Your task to perform on an android device: turn off javascript in the chrome app Image 0: 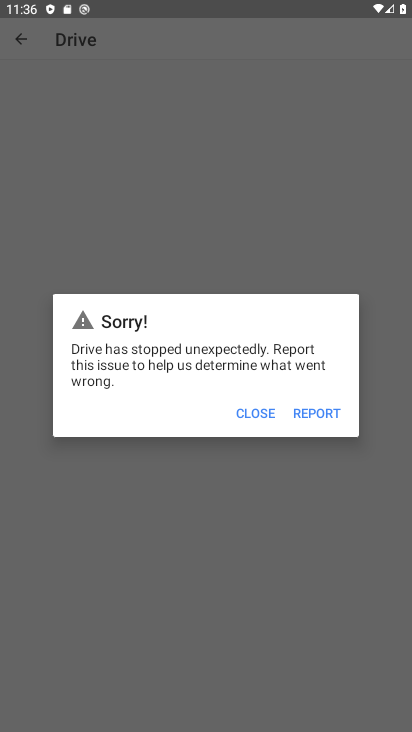
Step 0: press home button
Your task to perform on an android device: turn off javascript in the chrome app Image 1: 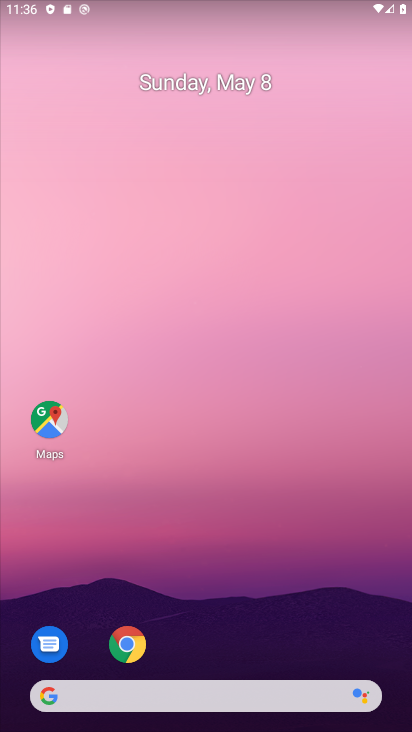
Step 1: click (134, 650)
Your task to perform on an android device: turn off javascript in the chrome app Image 2: 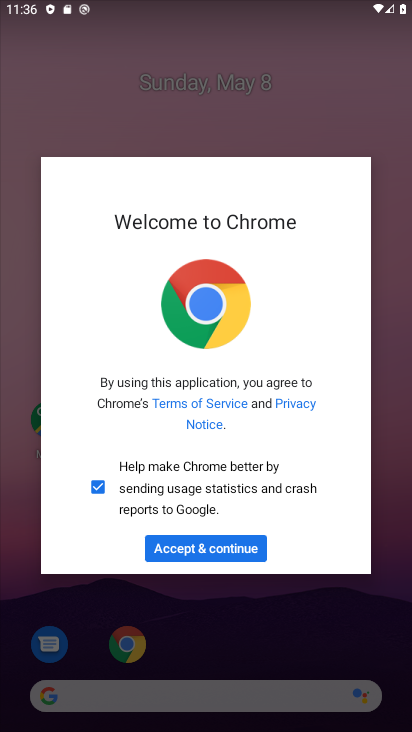
Step 2: click (224, 542)
Your task to perform on an android device: turn off javascript in the chrome app Image 3: 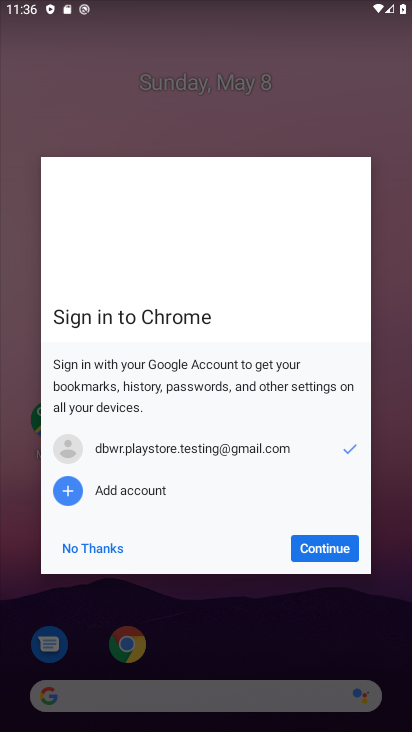
Step 3: click (315, 539)
Your task to perform on an android device: turn off javascript in the chrome app Image 4: 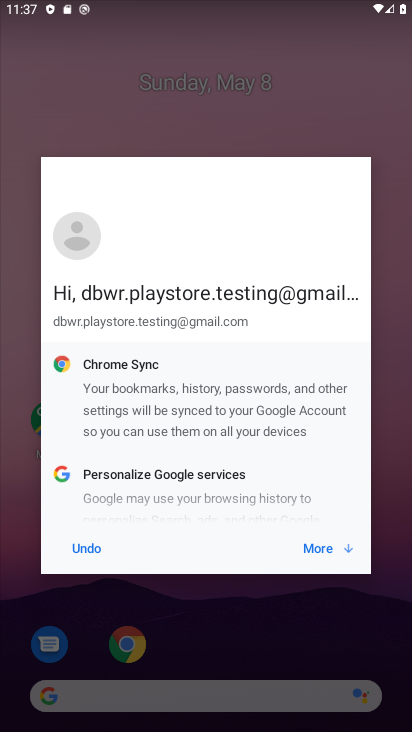
Step 4: click (348, 542)
Your task to perform on an android device: turn off javascript in the chrome app Image 5: 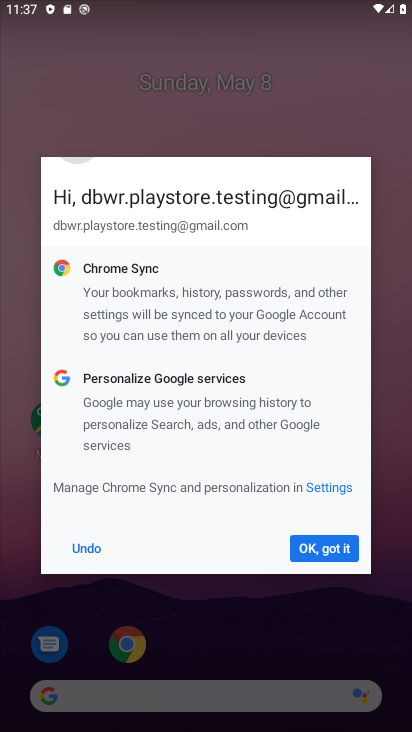
Step 5: click (337, 548)
Your task to perform on an android device: turn off javascript in the chrome app Image 6: 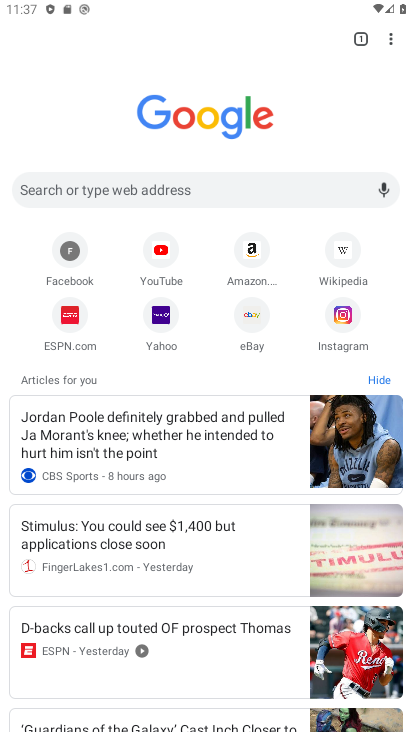
Step 6: click (390, 37)
Your task to perform on an android device: turn off javascript in the chrome app Image 7: 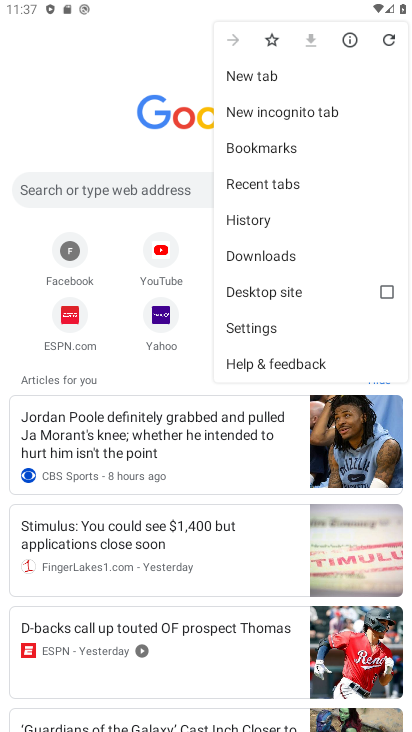
Step 7: click (275, 327)
Your task to perform on an android device: turn off javascript in the chrome app Image 8: 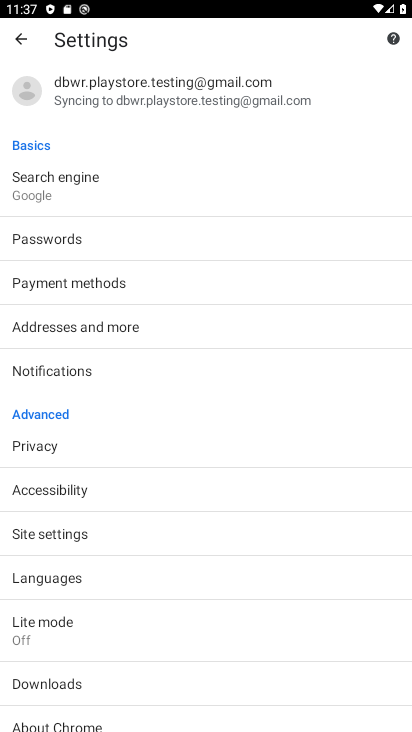
Step 8: drag from (146, 644) to (114, 268)
Your task to perform on an android device: turn off javascript in the chrome app Image 9: 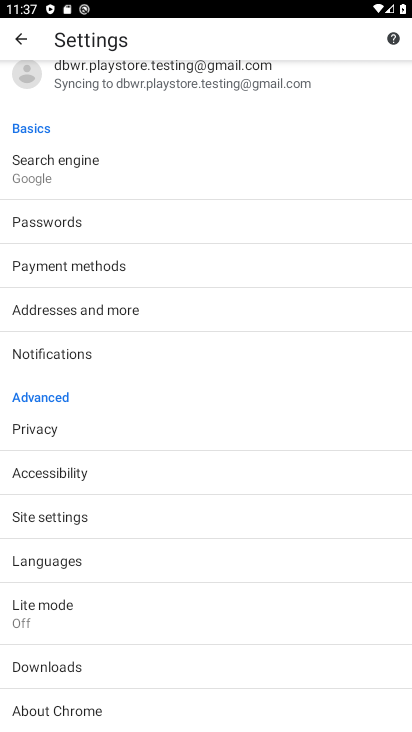
Step 9: click (113, 518)
Your task to perform on an android device: turn off javascript in the chrome app Image 10: 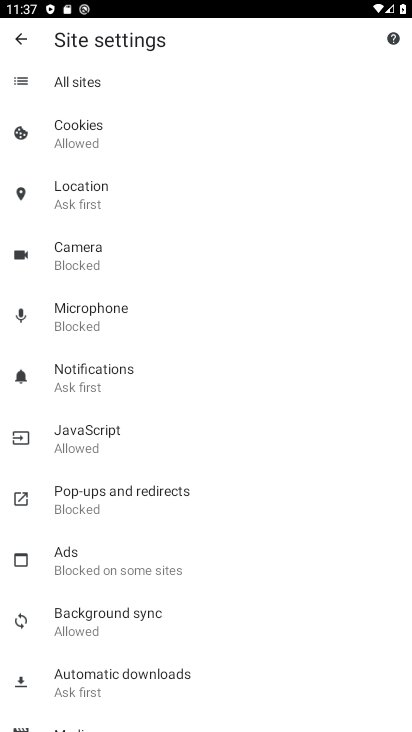
Step 10: click (150, 429)
Your task to perform on an android device: turn off javascript in the chrome app Image 11: 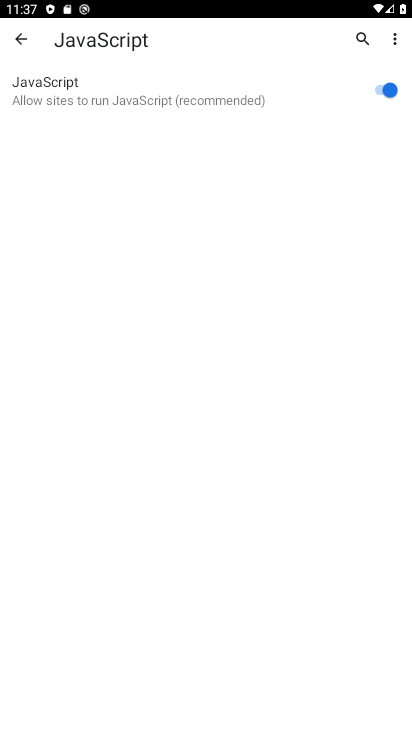
Step 11: click (392, 87)
Your task to perform on an android device: turn off javascript in the chrome app Image 12: 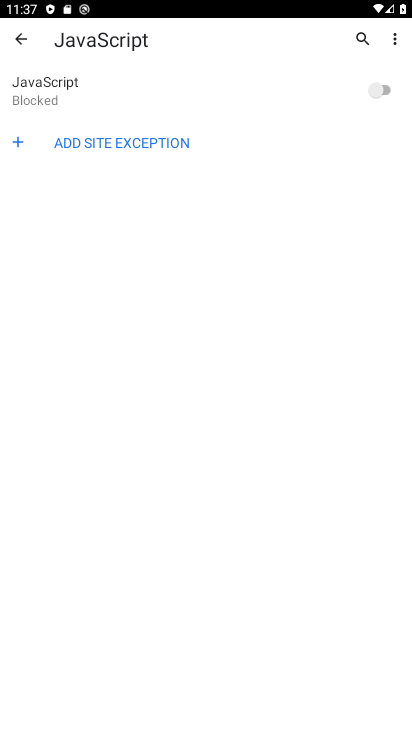
Step 12: task complete